Your task to perform on an android device: Go to battery settings Image 0: 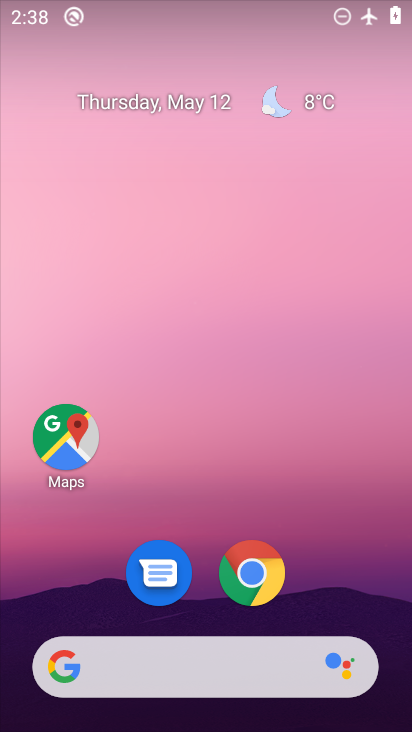
Step 0: drag from (338, 606) to (178, 85)
Your task to perform on an android device: Go to battery settings Image 1: 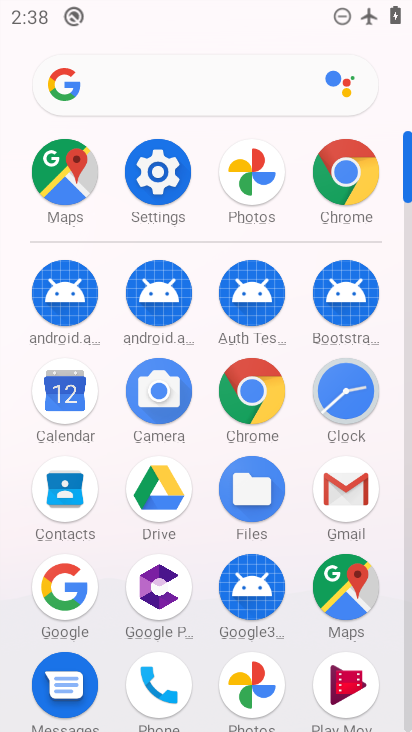
Step 1: click (161, 189)
Your task to perform on an android device: Go to battery settings Image 2: 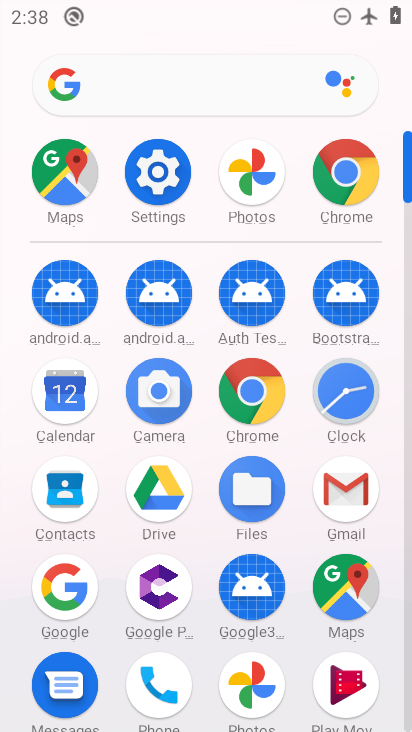
Step 2: click (150, 179)
Your task to perform on an android device: Go to battery settings Image 3: 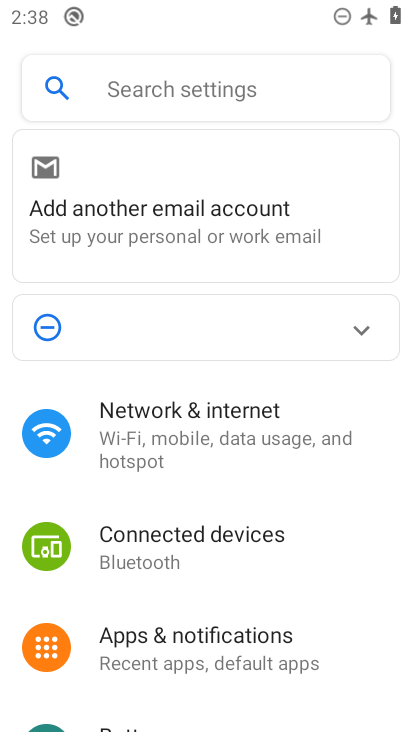
Step 3: click (152, 177)
Your task to perform on an android device: Go to battery settings Image 4: 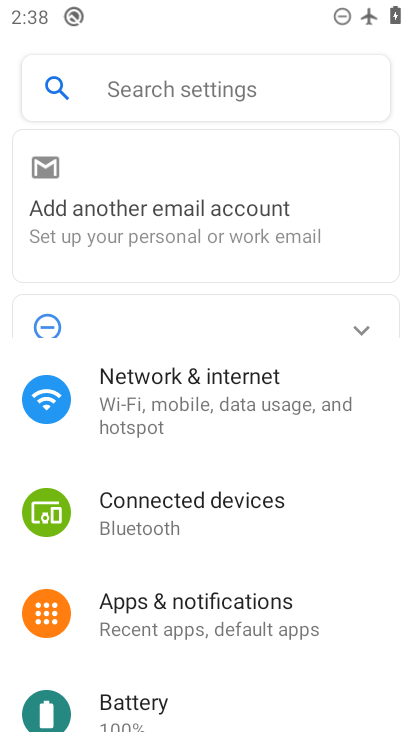
Step 4: click (154, 175)
Your task to perform on an android device: Go to battery settings Image 5: 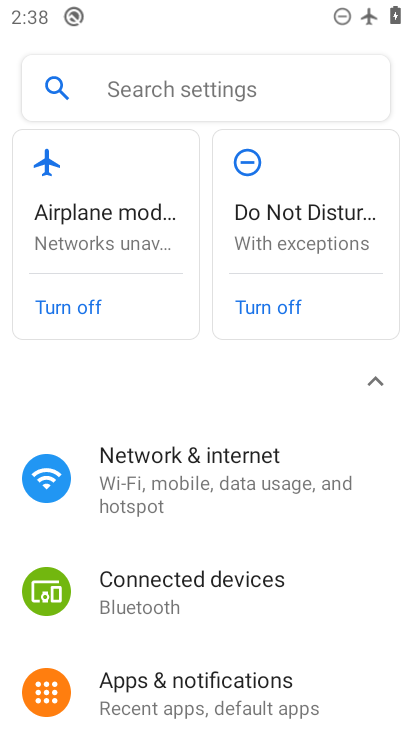
Step 5: drag from (156, 534) to (128, 400)
Your task to perform on an android device: Go to battery settings Image 6: 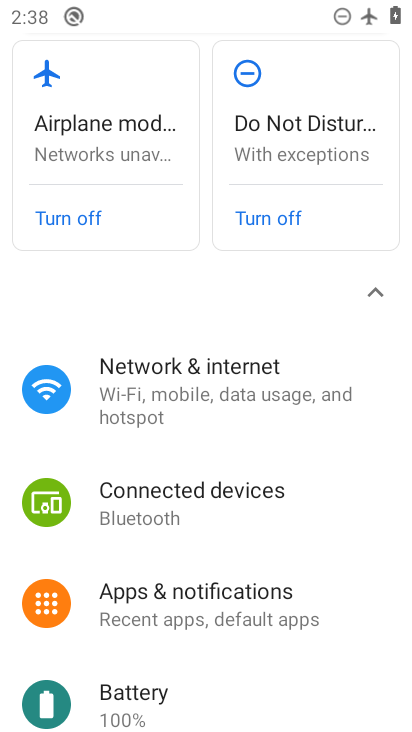
Step 6: drag from (202, 597) to (162, 420)
Your task to perform on an android device: Go to battery settings Image 7: 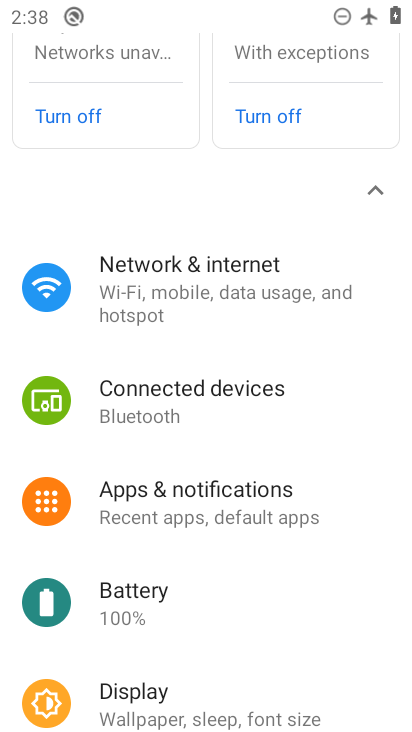
Step 7: drag from (229, 590) to (152, 283)
Your task to perform on an android device: Go to battery settings Image 8: 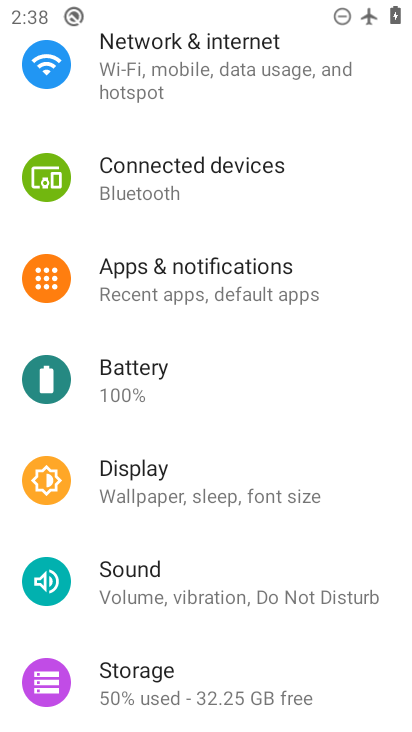
Step 8: click (128, 383)
Your task to perform on an android device: Go to battery settings Image 9: 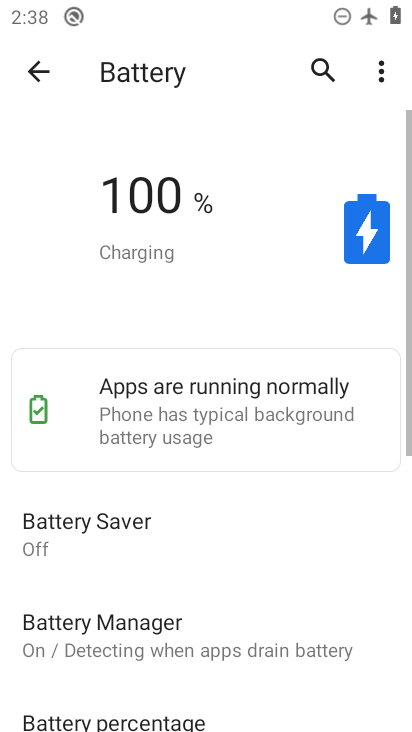
Step 9: click (127, 380)
Your task to perform on an android device: Go to battery settings Image 10: 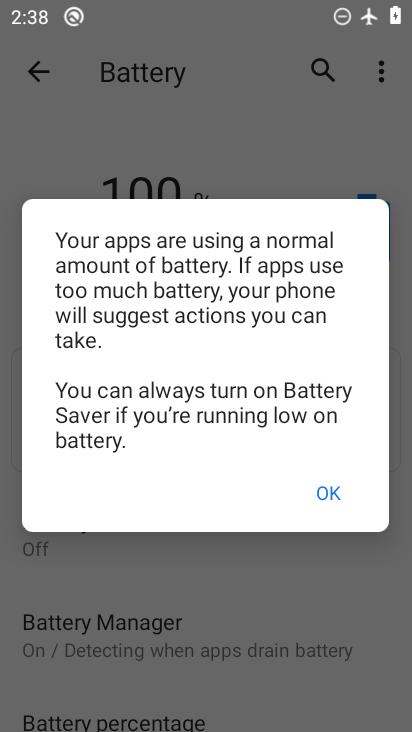
Step 10: click (331, 493)
Your task to perform on an android device: Go to battery settings Image 11: 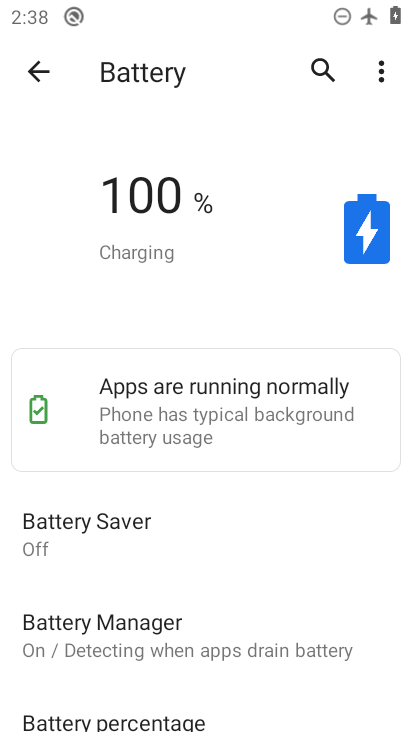
Step 11: task complete